Your task to perform on an android device: Open CNN.com Image 0: 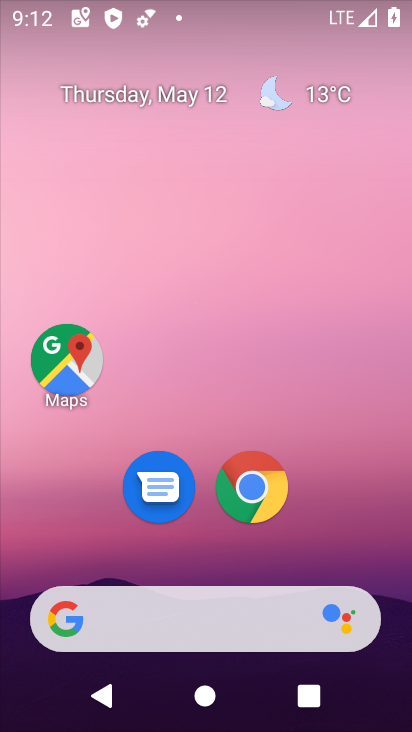
Step 0: click (251, 504)
Your task to perform on an android device: Open CNN.com Image 1: 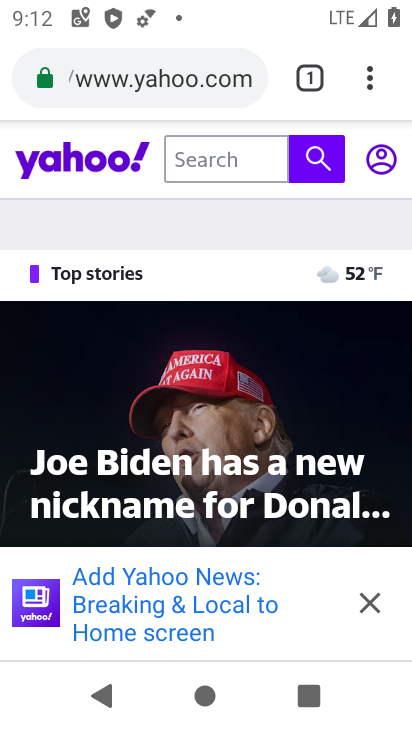
Step 1: click (113, 84)
Your task to perform on an android device: Open CNN.com Image 2: 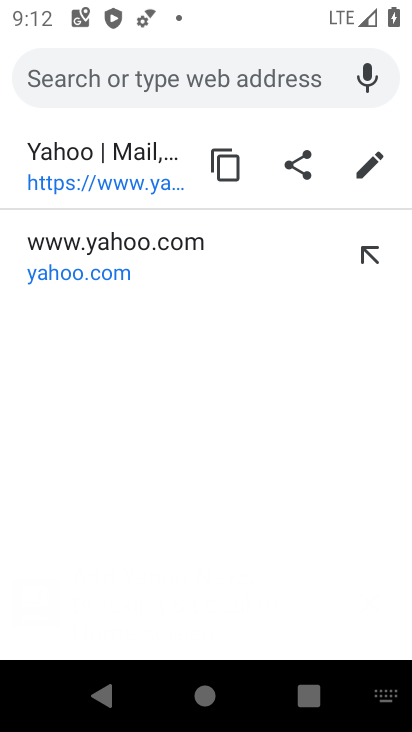
Step 2: type "cnn.com"
Your task to perform on an android device: Open CNN.com Image 3: 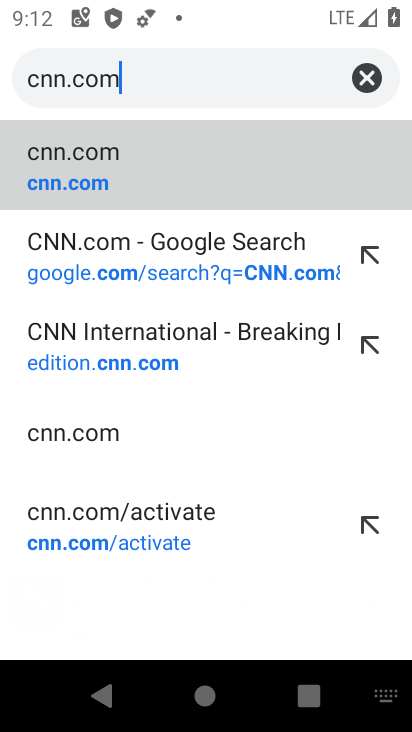
Step 3: click (89, 189)
Your task to perform on an android device: Open CNN.com Image 4: 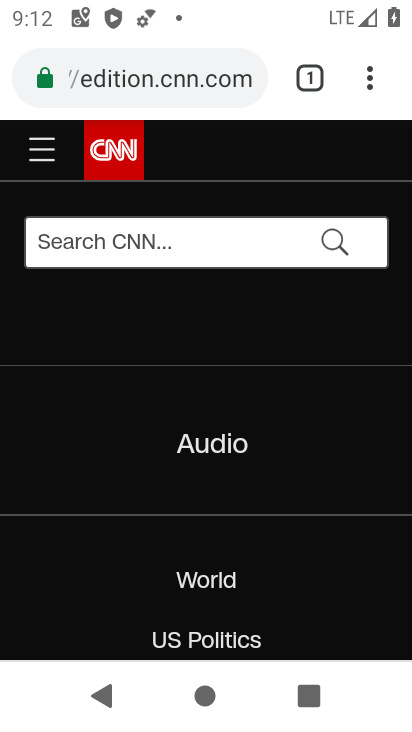
Step 4: task complete